Your task to perform on an android device: Open settings Image 0: 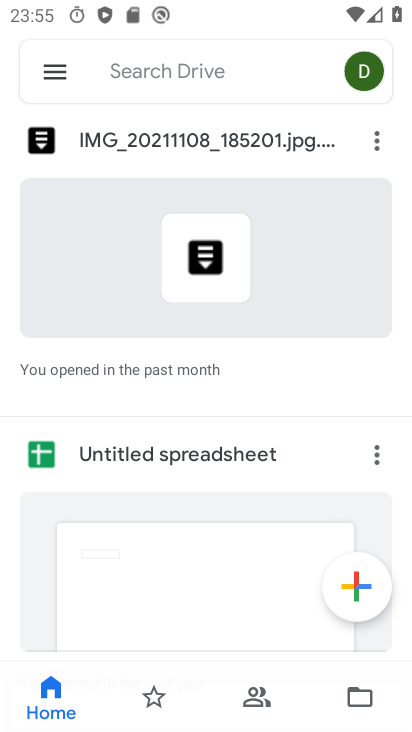
Step 0: press home button
Your task to perform on an android device: Open settings Image 1: 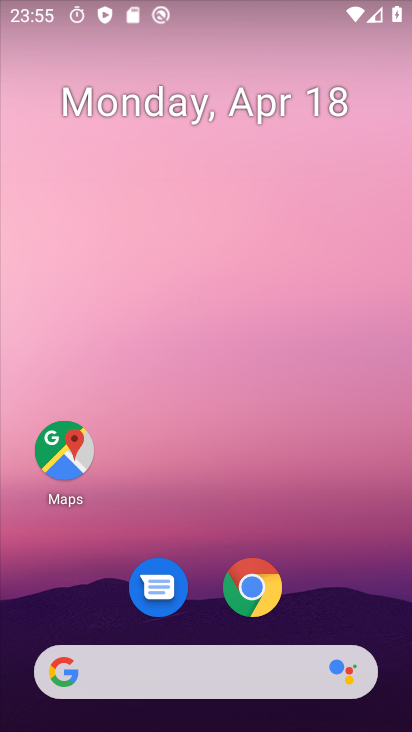
Step 1: drag from (380, 601) to (410, 159)
Your task to perform on an android device: Open settings Image 2: 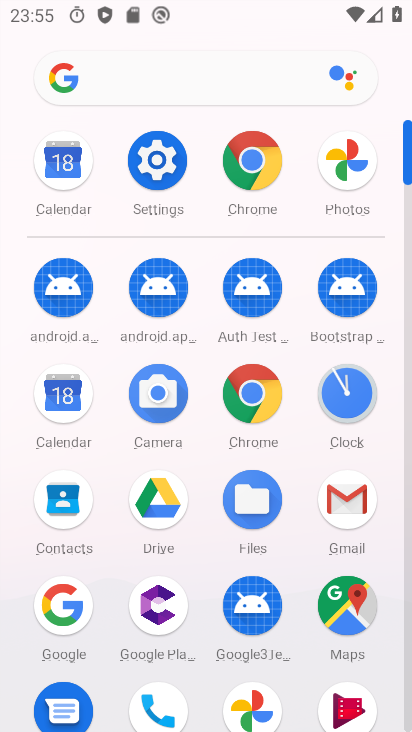
Step 2: click (171, 157)
Your task to perform on an android device: Open settings Image 3: 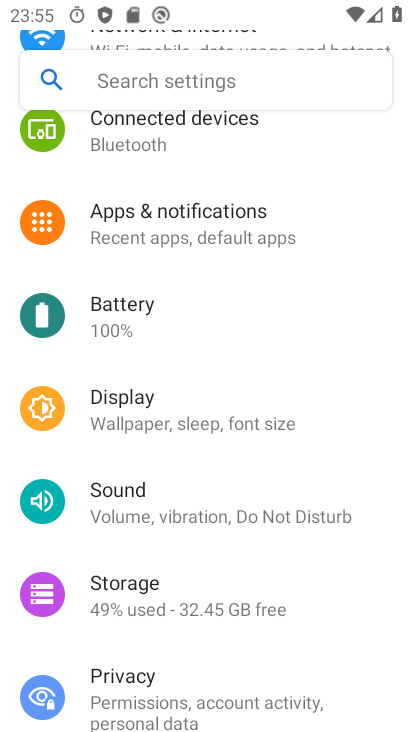
Step 3: task complete